Your task to perform on an android device: Open the map Image 0: 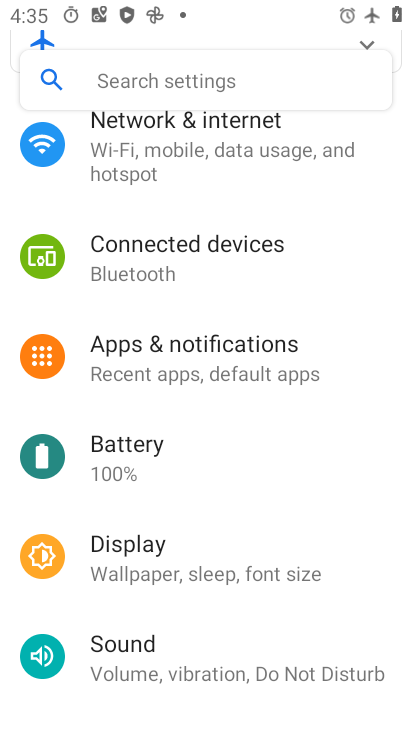
Step 0: press home button
Your task to perform on an android device: Open the map Image 1: 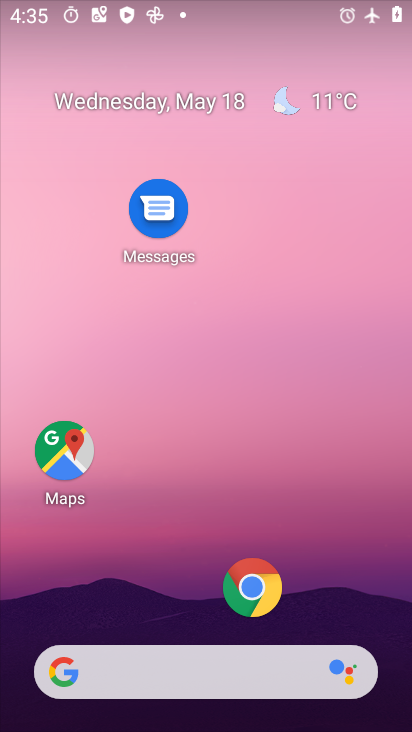
Step 1: click (78, 458)
Your task to perform on an android device: Open the map Image 2: 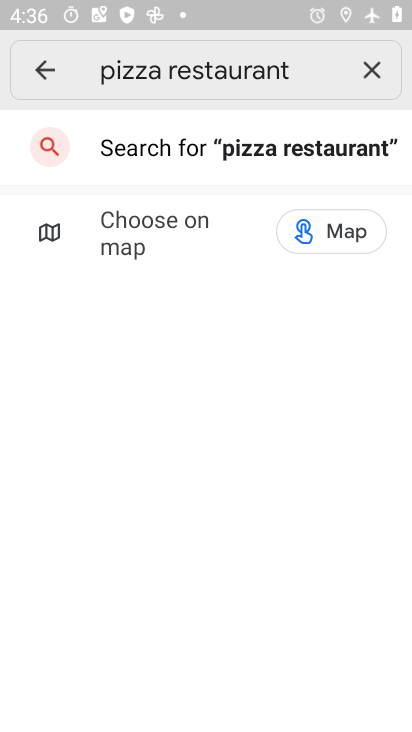
Step 2: task complete